Your task to perform on an android device: What's on my calendar tomorrow? Image 0: 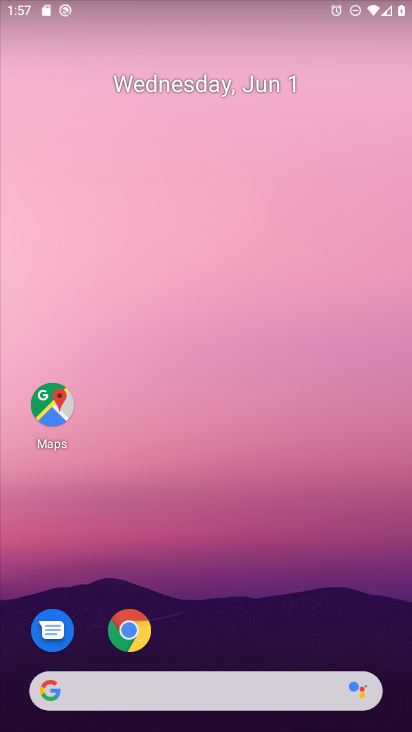
Step 0: drag from (268, 608) to (313, 45)
Your task to perform on an android device: What's on my calendar tomorrow? Image 1: 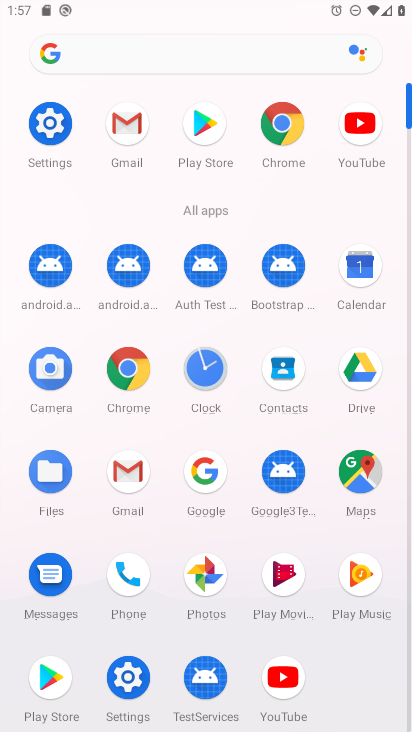
Step 1: click (364, 258)
Your task to perform on an android device: What's on my calendar tomorrow? Image 2: 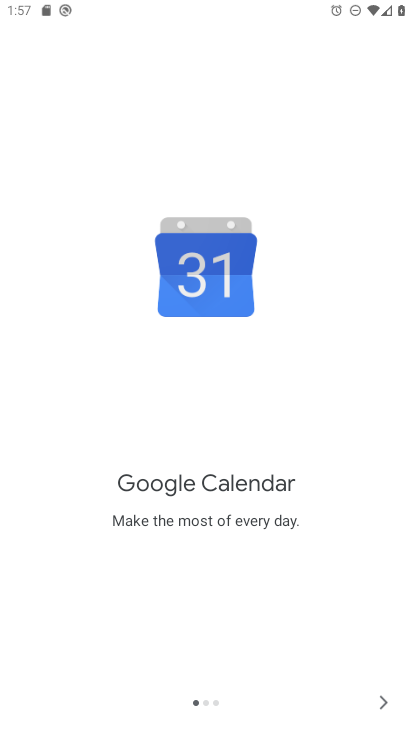
Step 2: click (381, 697)
Your task to perform on an android device: What's on my calendar tomorrow? Image 3: 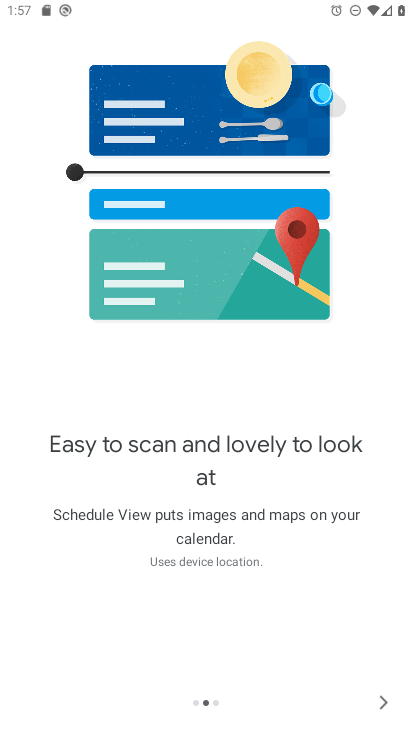
Step 3: click (387, 700)
Your task to perform on an android device: What's on my calendar tomorrow? Image 4: 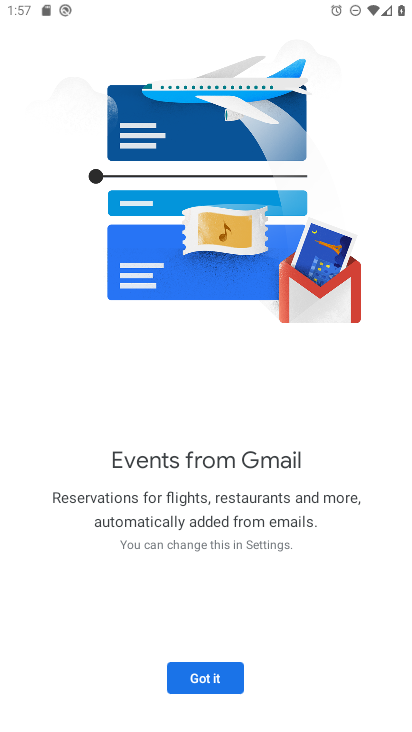
Step 4: click (224, 682)
Your task to perform on an android device: What's on my calendar tomorrow? Image 5: 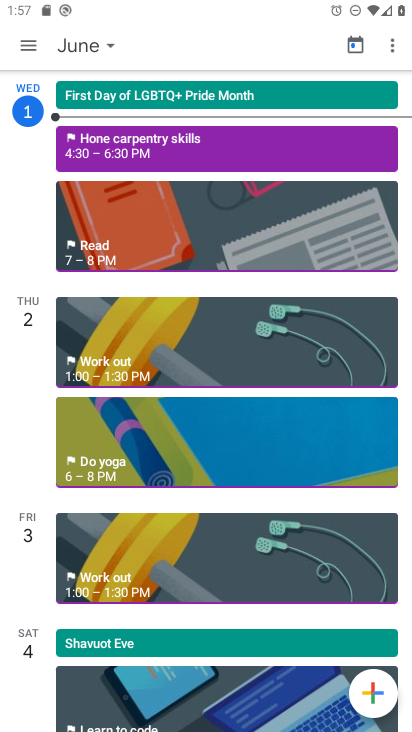
Step 5: click (110, 46)
Your task to perform on an android device: What's on my calendar tomorrow? Image 6: 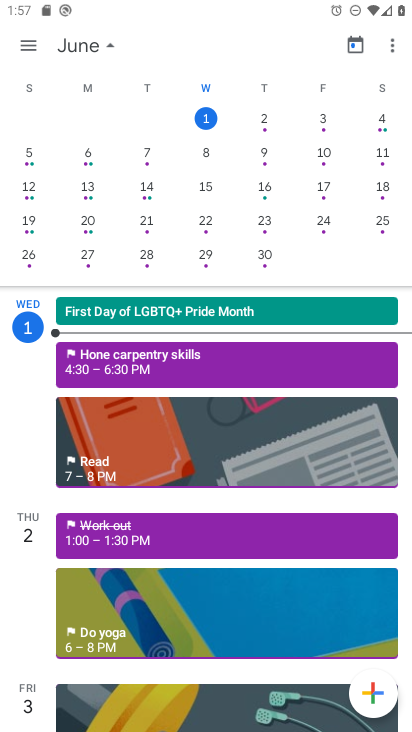
Step 6: click (263, 119)
Your task to perform on an android device: What's on my calendar tomorrow? Image 7: 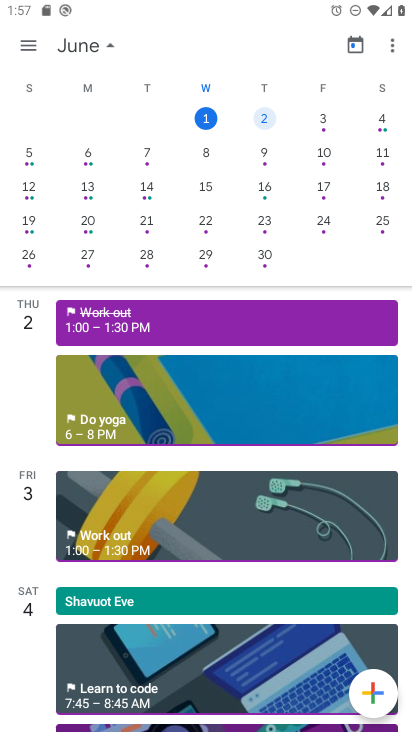
Step 7: task complete